Your task to perform on an android device: Open Wikipedia Image 0: 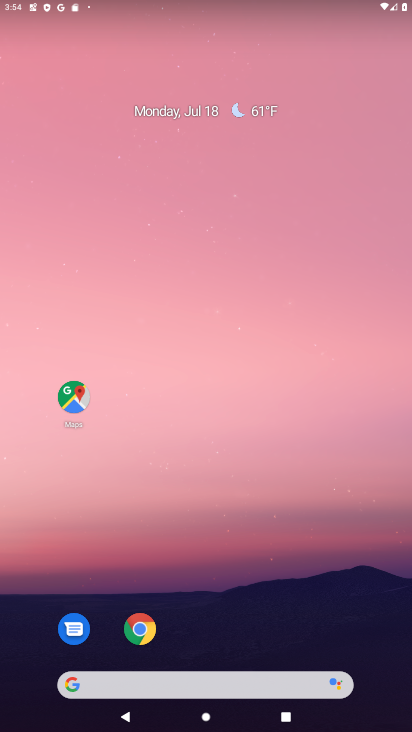
Step 0: drag from (261, 673) to (277, 301)
Your task to perform on an android device: Open Wikipedia Image 1: 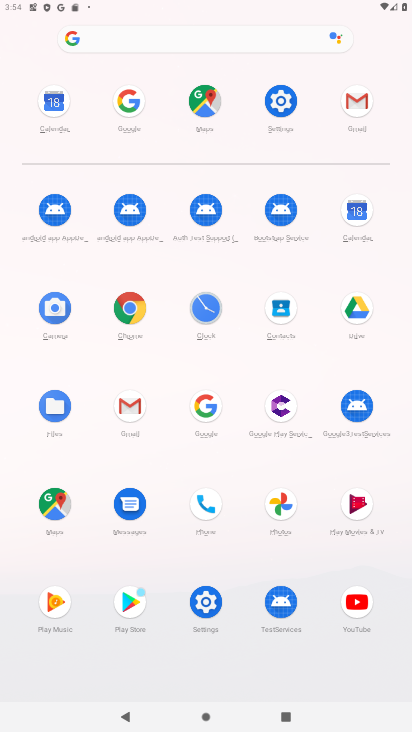
Step 1: click (275, 94)
Your task to perform on an android device: Open Wikipedia Image 2: 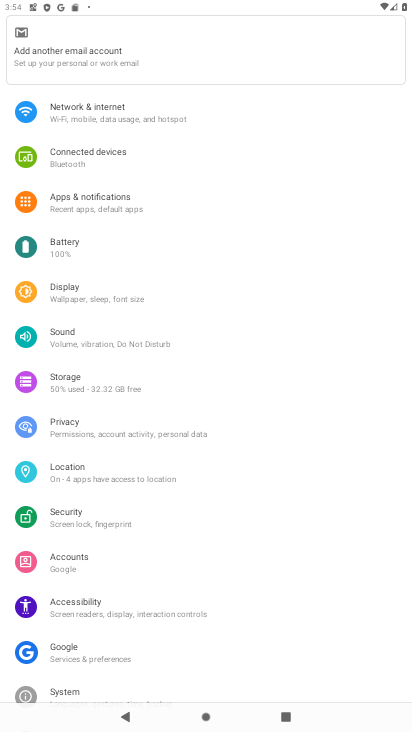
Step 2: click (74, 121)
Your task to perform on an android device: Open Wikipedia Image 3: 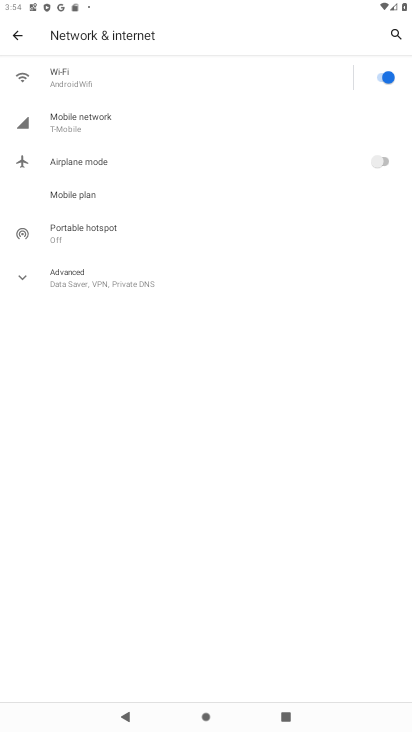
Step 3: click (162, 77)
Your task to perform on an android device: Open Wikipedia Image 4: 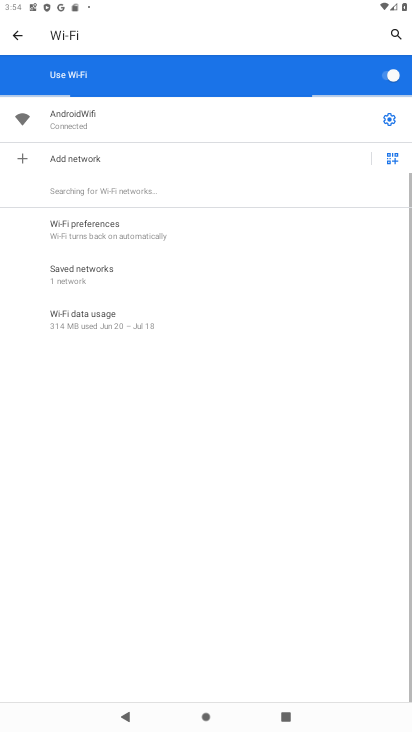
Step 4: click (392, 122)
Your task to perform on an android device: Open Wikipedia Image 5: 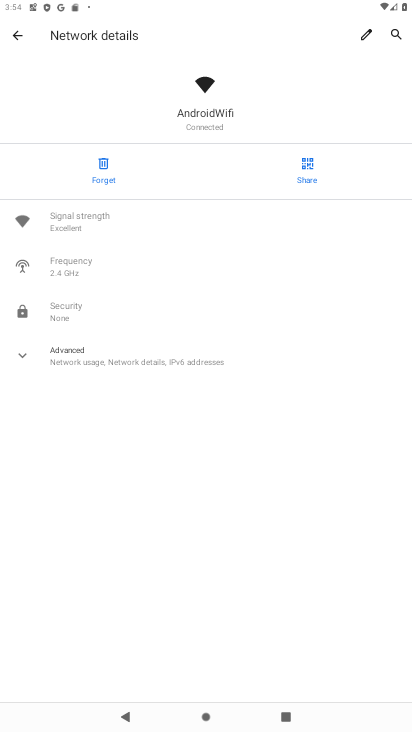
Step 5: click (71, 364)
Your task to perform on an android device: Open Wikipedia Image 6: 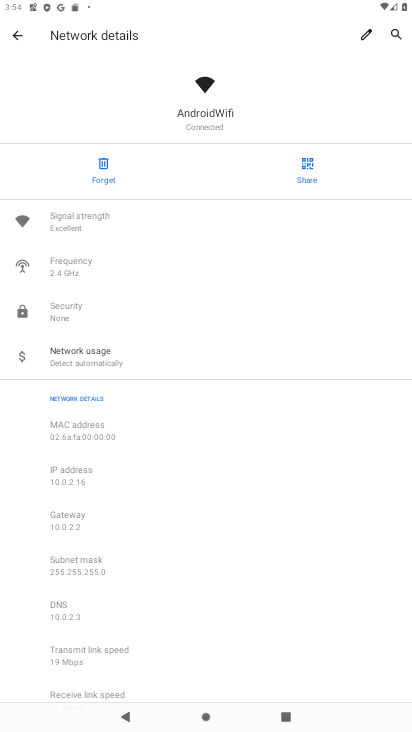
Step 6: task complete